Your task to perform on an android device: turn on translation in the chrome app Image 0: 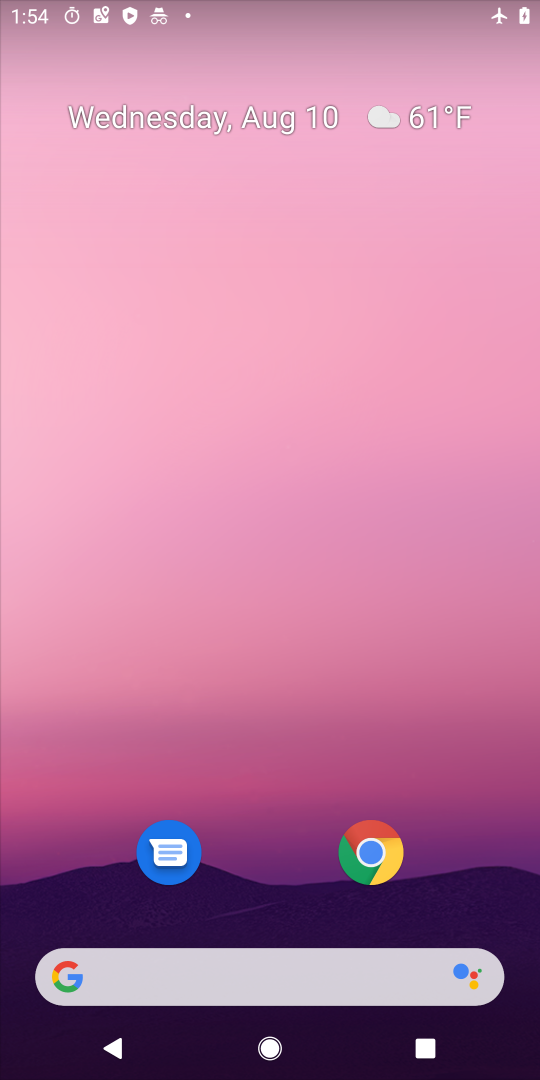
Step 0: drag from (312, 779) to (290, 48)
Your task to perform on an android device: turn on translation in the chrome app Image 1: 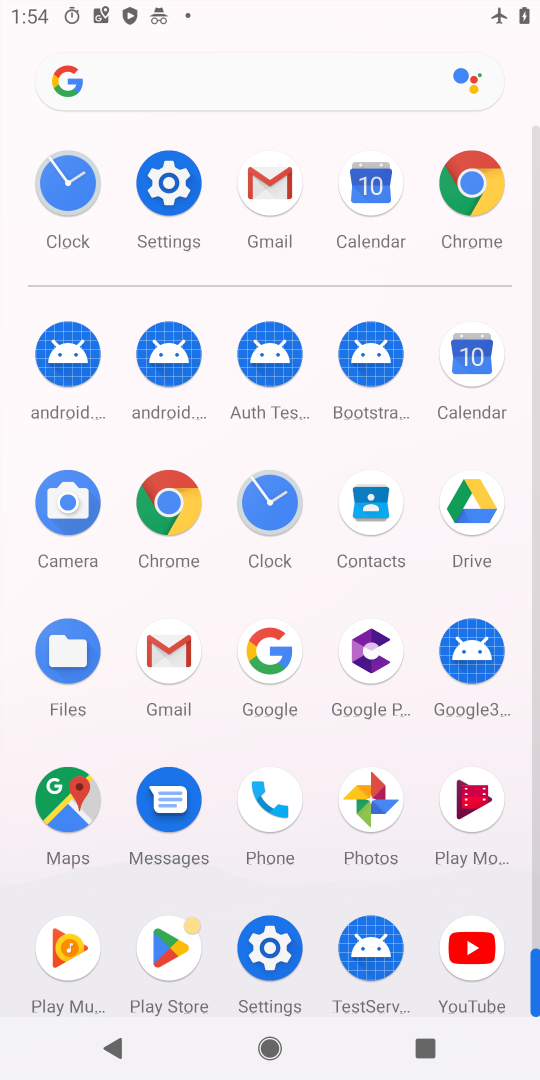
Step 1: click (178, 506)
Your task to perform on an android device: turn on translation in the chrome app Image 2: 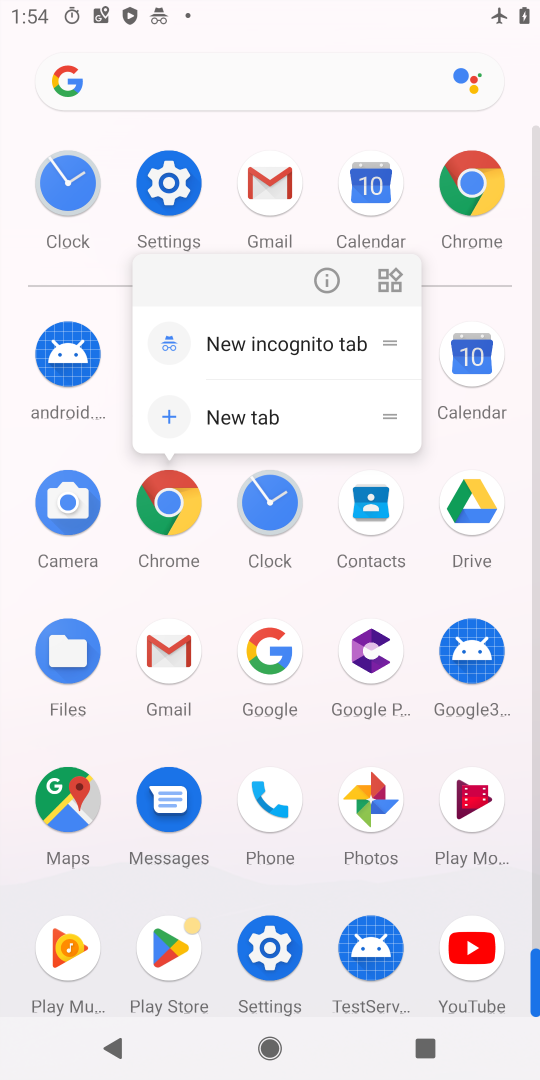
Step 2: click (164, 504)
Your task to perform on an android device: turn on translation in the chrome app Image 3: 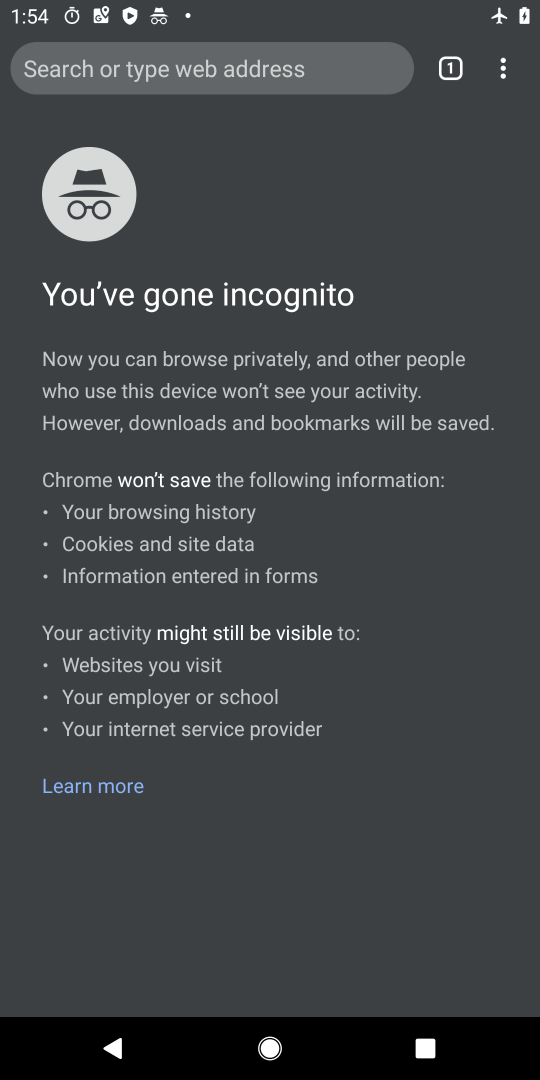
Step 3: drag from (507, 66) to (306, 524)
Your task to perform on an android device: turn on translation in the chrome app Image 4: 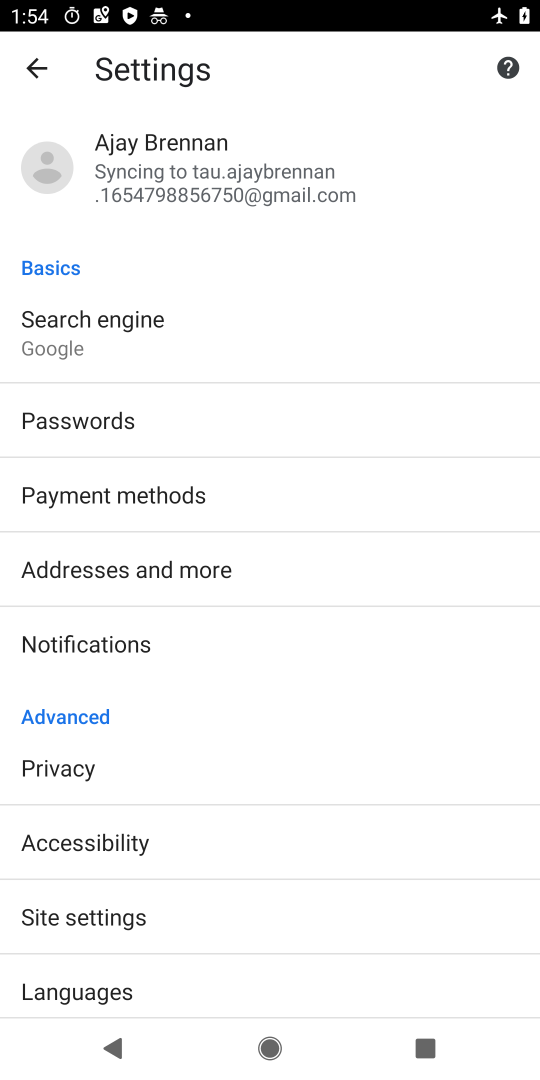
Step 4: drag from (267, 874) to (322, 250)
Your task to perform on an android device: turn on translation in the chrome app Image 5: 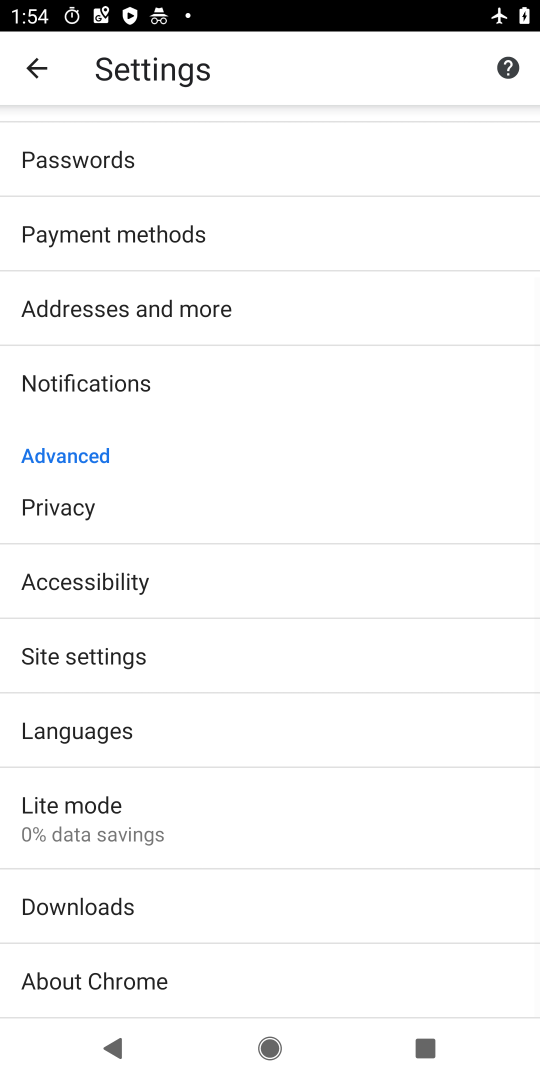
Step 5: click (138, 731)
Your task to perform on an android device: turn on translation in the chrome app Image 6: 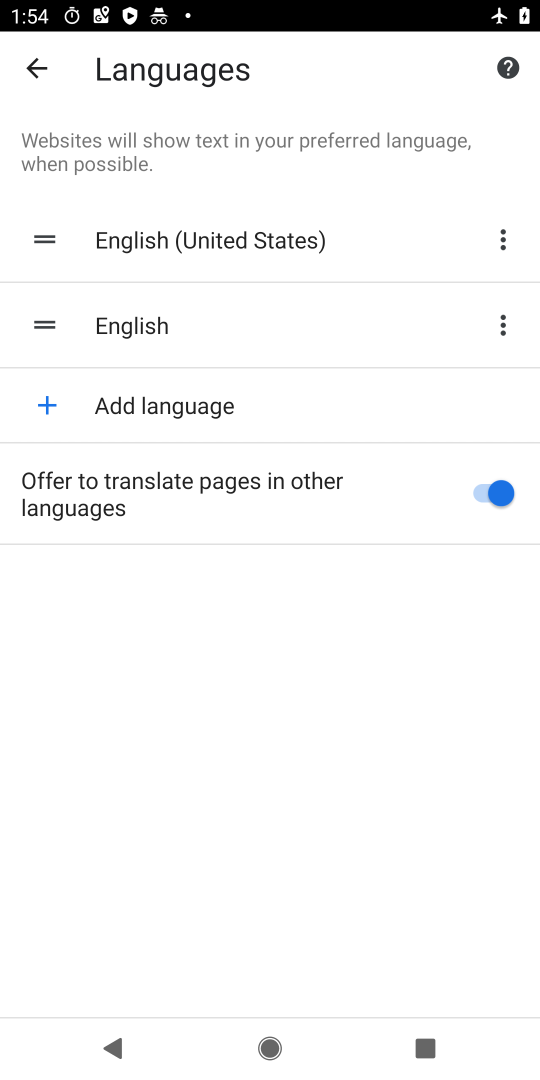
Step 6: task complete